Your task to perform on an android device: Open CNN.com Image 0: 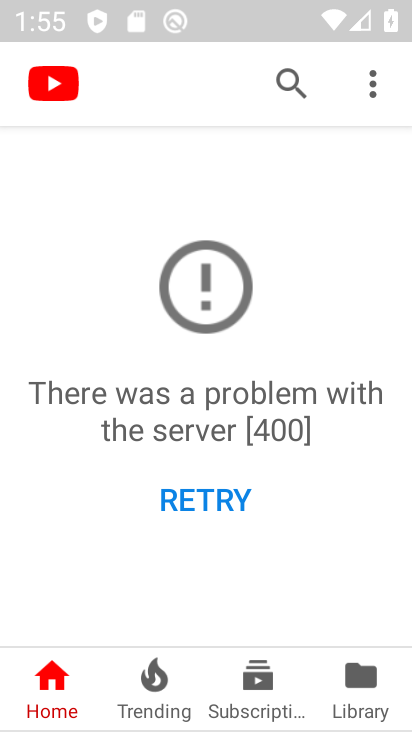
Step 0: press back button
Your task to perform on an android device: Open CNN.com Image 1: 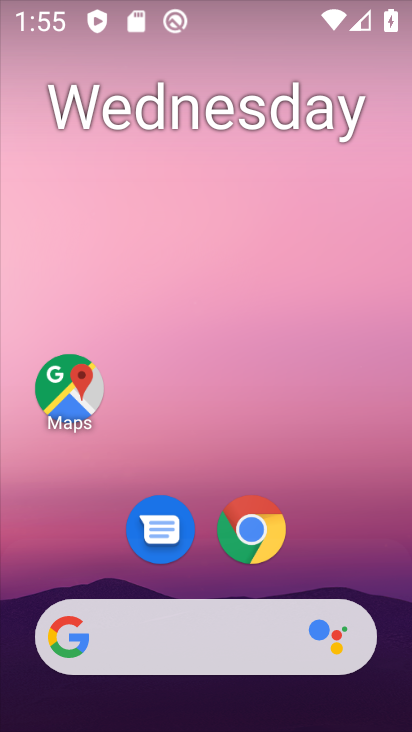
Step 1: click (262, 538)
Your task to perform on an android device: Open CNN.com Image 2: 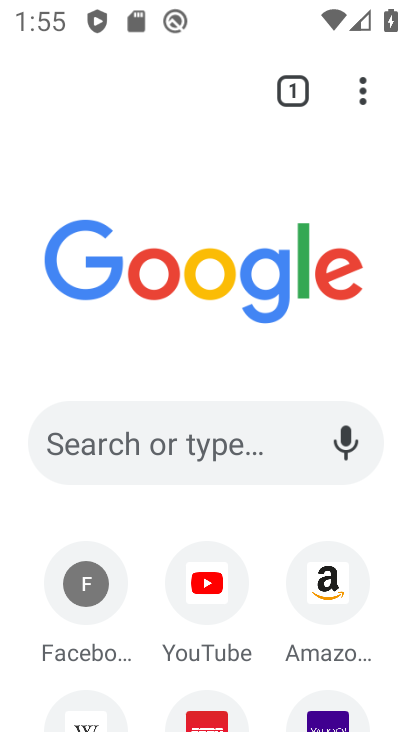
Step 2: drag from (234, 624) to (254, 302)
Your task to perform on an android device: Open CNN.com Image 3: 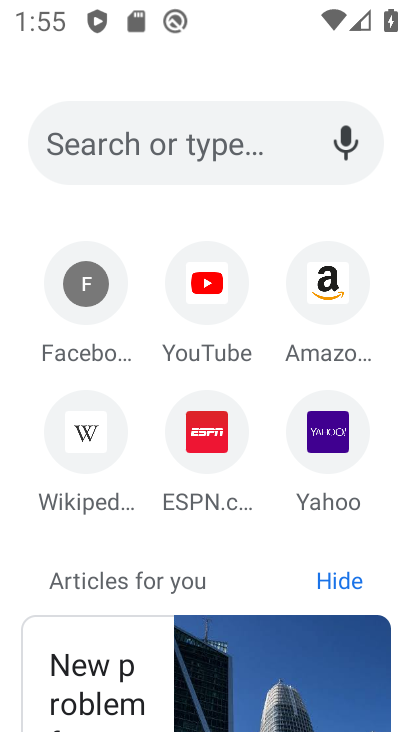
Step 3: click (166, 148)
Your task to perform on an android device: Open CNN.com Image 4: 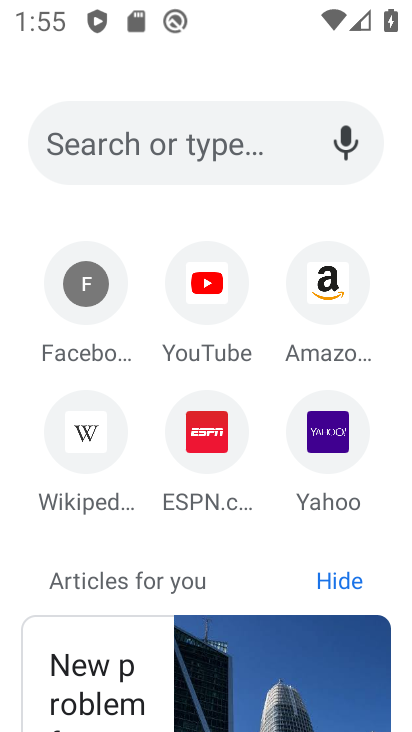
Step 4: type "cnn.com"
Your task to perform on an android device: Open CNN.com Image 5: 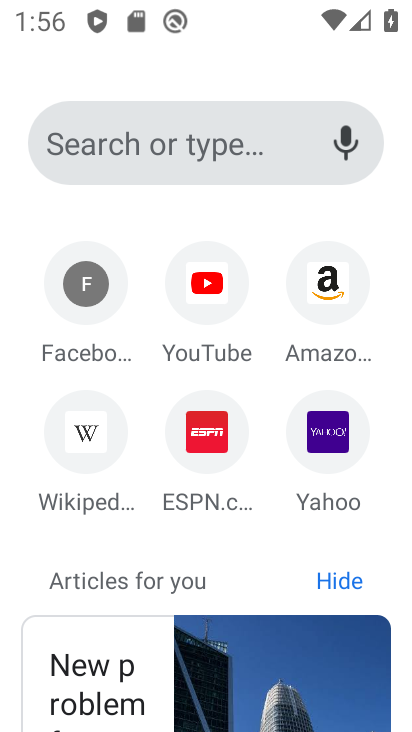
Step 5: click (162, 129)
Your task to perform on an android device: Open CNN.com Image 6: 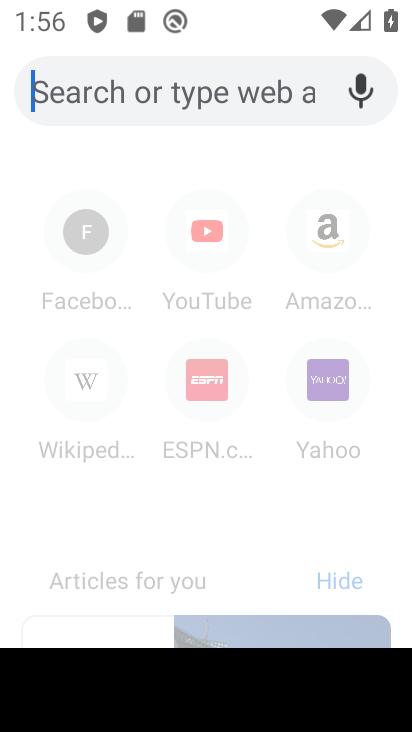
Step 6: type "cnn.com"
Your task to perform on an android device: Open CNN.com Image 7: 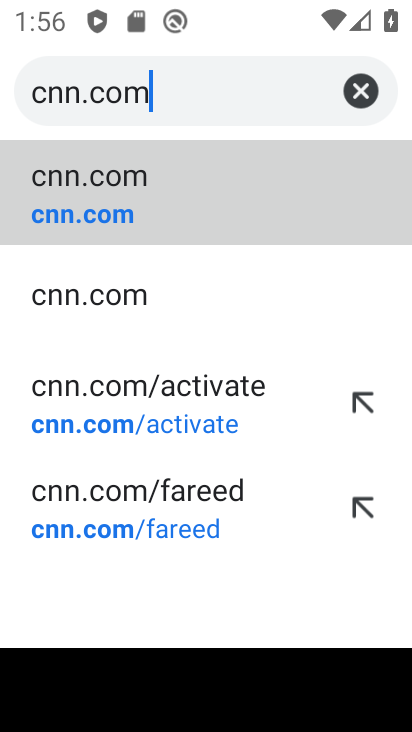
Step 7: click (88, 183)
Your task to perform on an android device: Open CNN.com Image 8: 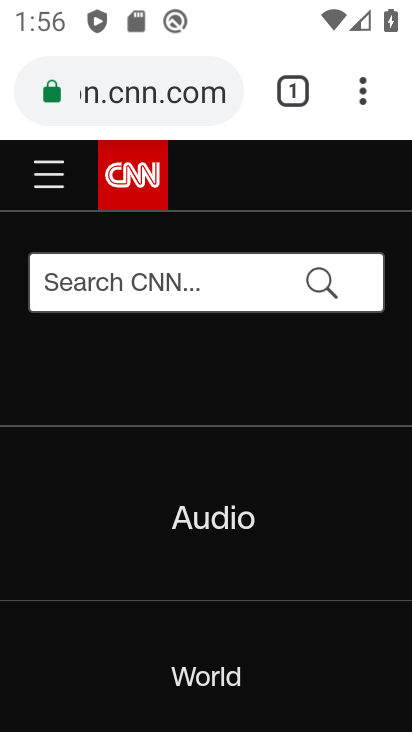
Step 8: task complete